Your task to perform on an android device: turn notification dots on Image 0: 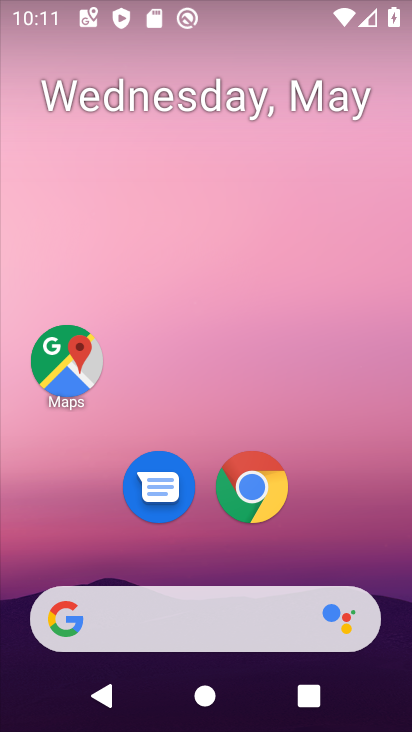
Step 0: drag from (218, 580) to (380, 445)
Your task to perform on an android device: turn notification dots on Image 1: 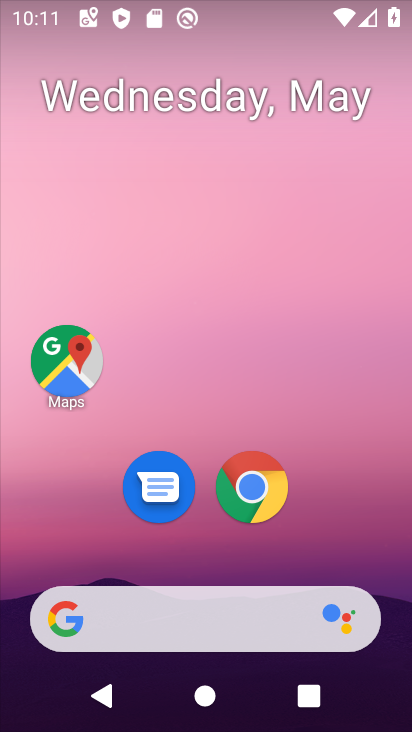
Step 1: drag from (189, 579) to (308, 15)
Your task to perform on an android device: turn notification dots on Image 2: 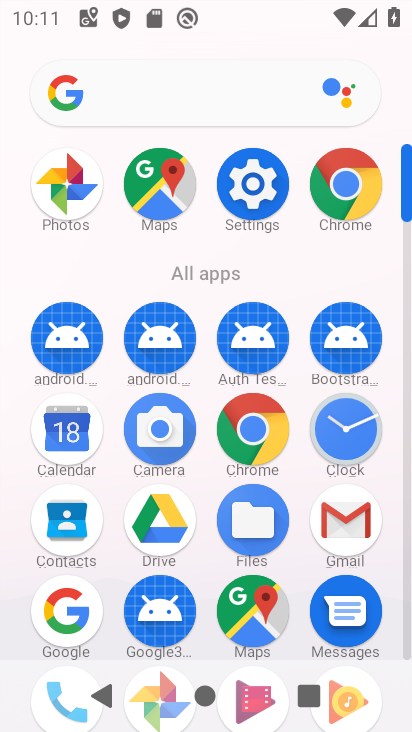
Step 2: click (258, 192)
Your task to perform on an android device: turn notification dots on Image 3: 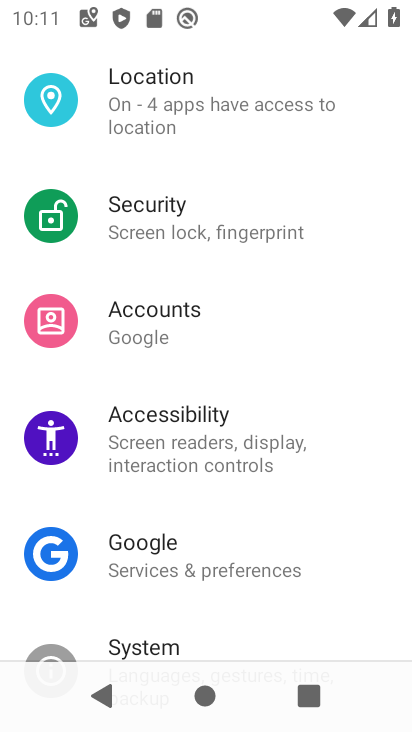
Step 3: press home button
Your task to perform on an android device: turn notification dots on Image 4: 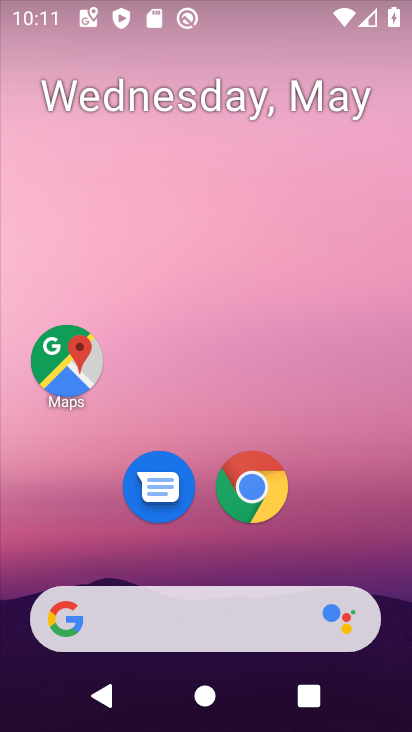
Step 4: drag from (185, 577) to (408, 188)
Your task to perform on an android device: turn notification dots on Image 5: 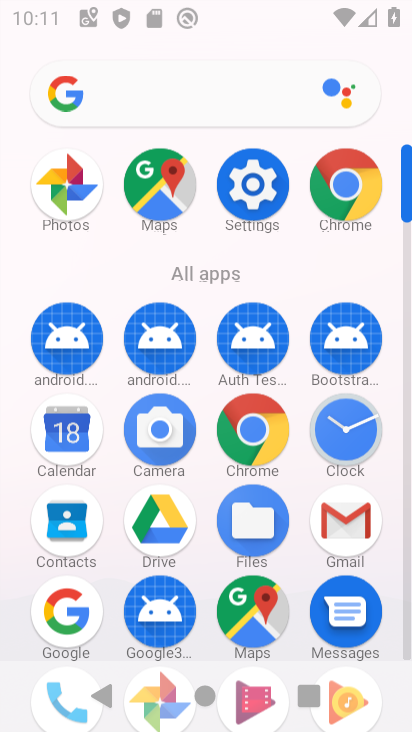
Step 5: click (222, 192)
Your task to perform on an android device: turn notification dots on Image 6: 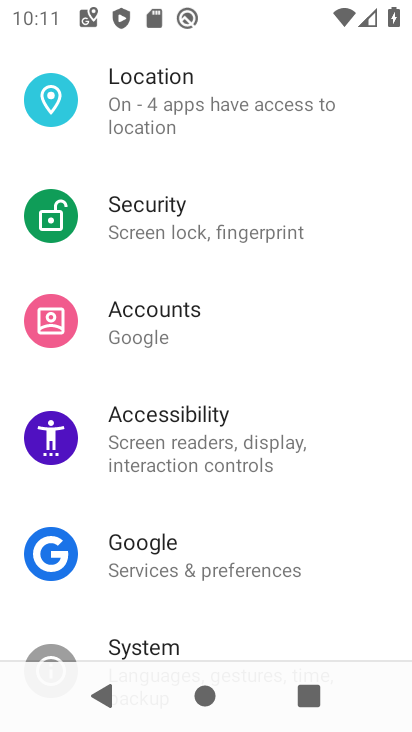
Step 6: drag from (224, 236) to (120, 722)
Your task to perform on an android device: turn notification dots on Image 7: 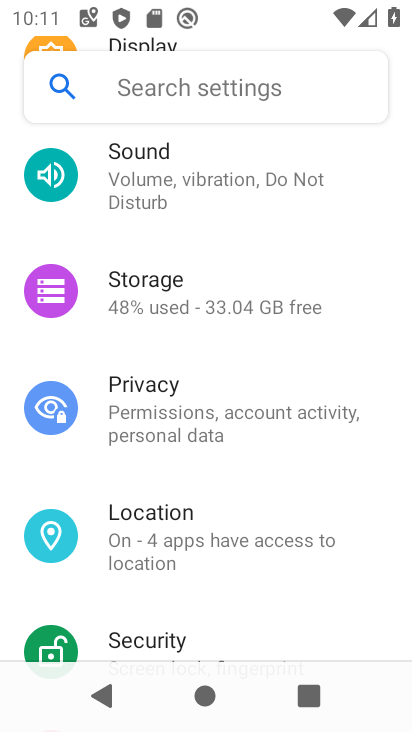
Step 7: drag from (221, 175) to (135, 639)
Your task to perform on an android device: turn notification dots on Image 8: 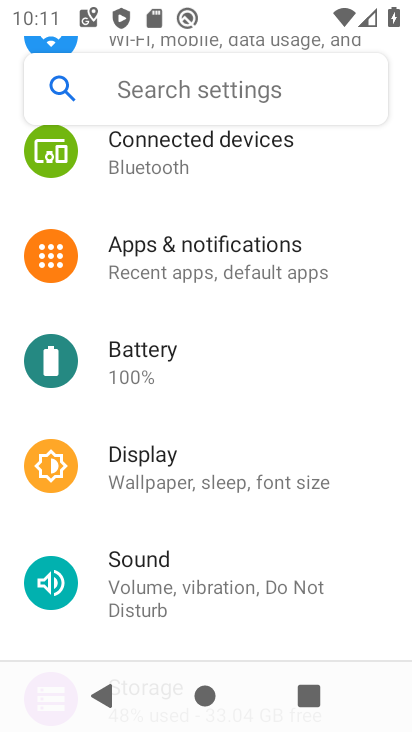
Step 8: click (204, 248)
Your task to perform on an android device: turn notification dots on Image 9: 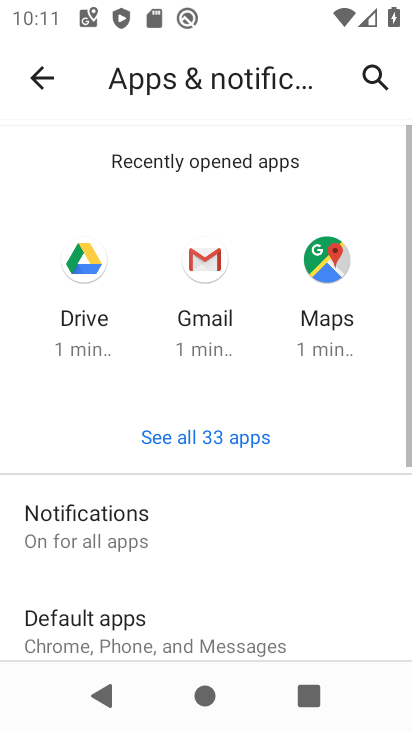
Step 9: click (120, 525)
Your task to perform on an android device: turn notification dots on Image 10: 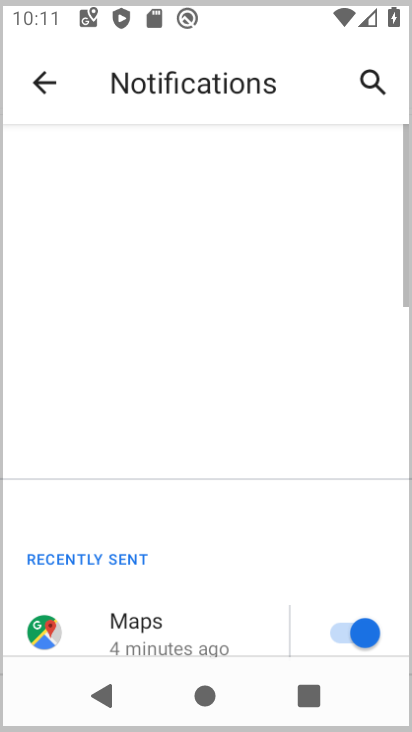
Step 10: drag from (189, 528) to (397, 395)
Your task to perform on an android device: turn notification dots on Image 11: 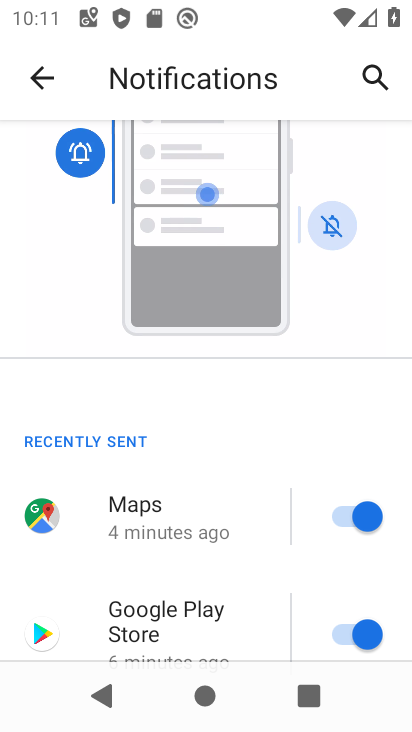
Step 11: drag from (293, 551) to (269, 8)
Your task to perform on an android device: turn notification dots on Image 12: 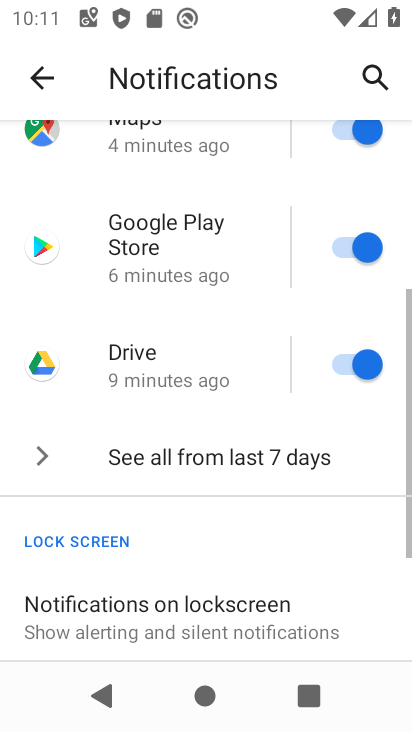
Step 12: drag from (253, 562) to (253, 19)
Your task to perform on an android device: turn notification dots on Image 13: 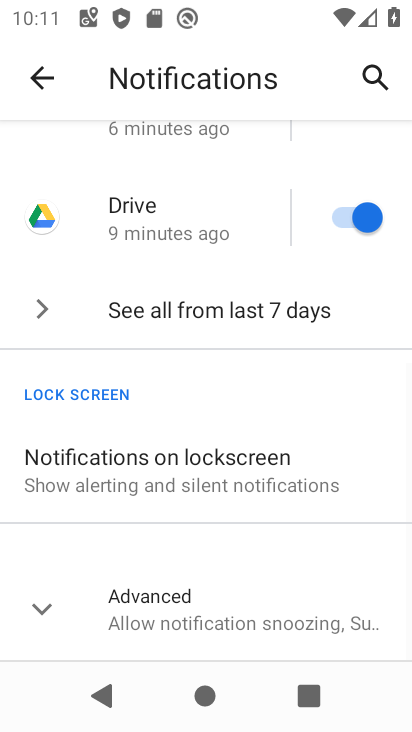
Step 13: click (190, 604)
Your task to perform on an android device: turn notification dots on Image 14: 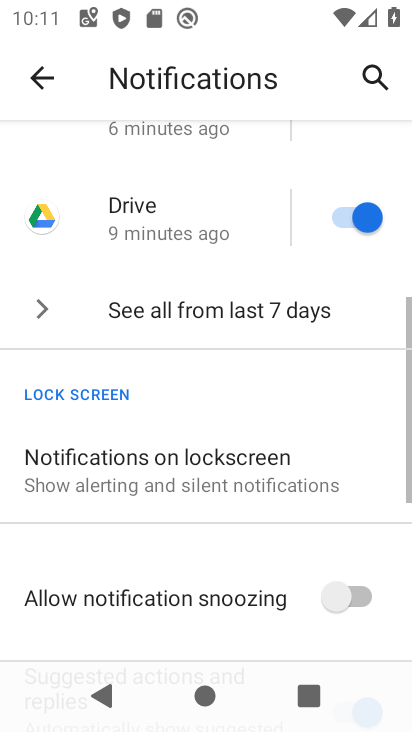
Step 14: task complete